Your task to perform on an android device: create a new album in the google photos Image 0: 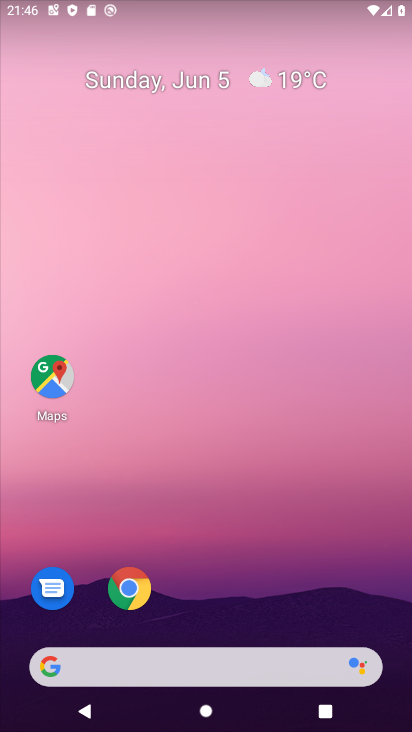
Step 0: drag from (345, 577) to (361, 226)
Your task to perform on an android device: create a new album in the google photos Image 1: 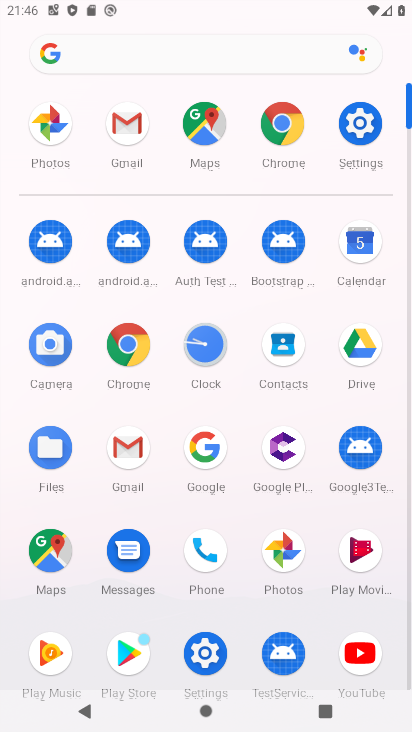
Step 1: click (284, 550)
Your task to perform on an android device: create a new album in the google photos Image 2: 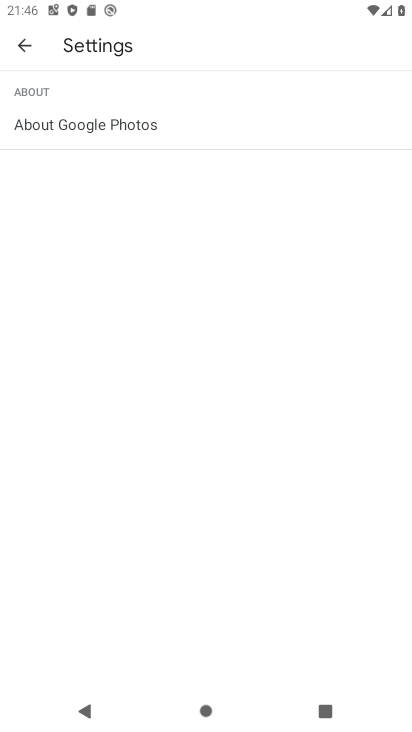
Step 2: press back button
Your task to perform on an android device: create a new album in the google photos Image 3: 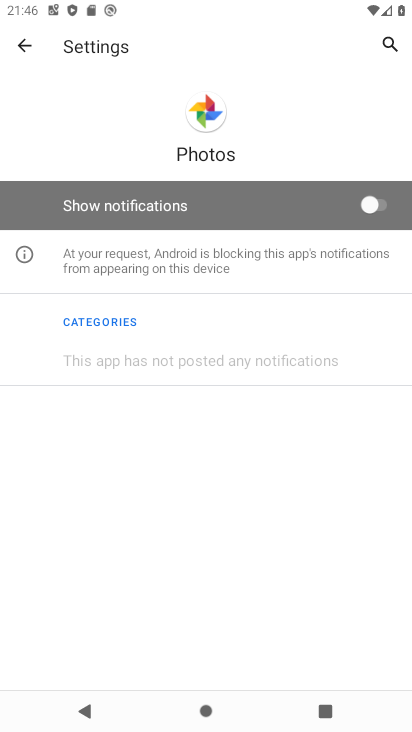
Step 3: press back button
Your task to perform on an android device: create a new album in the google photos Image 4: 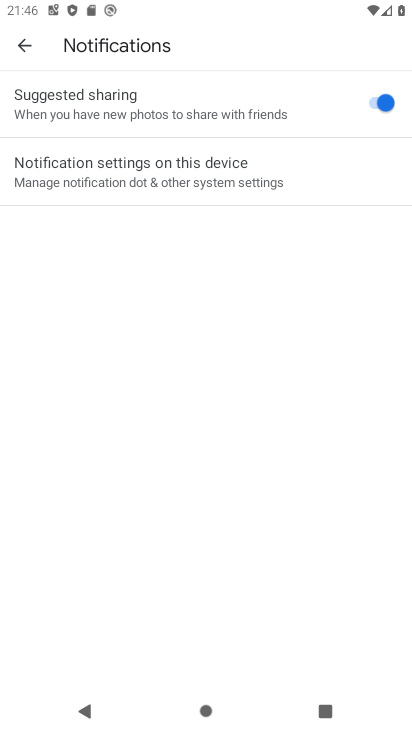
Step 4: press back button
Your task to perform on an android device: create a new album in the google photos Image 5: 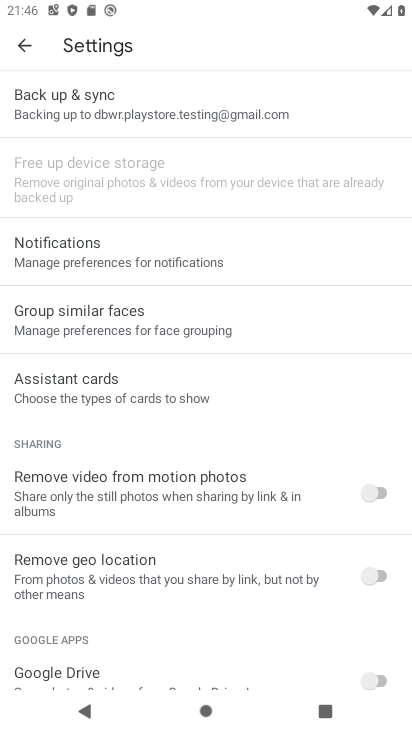
Step 5: press back button
Your task to perform on an android device: create a new album in the google photos Image 6: 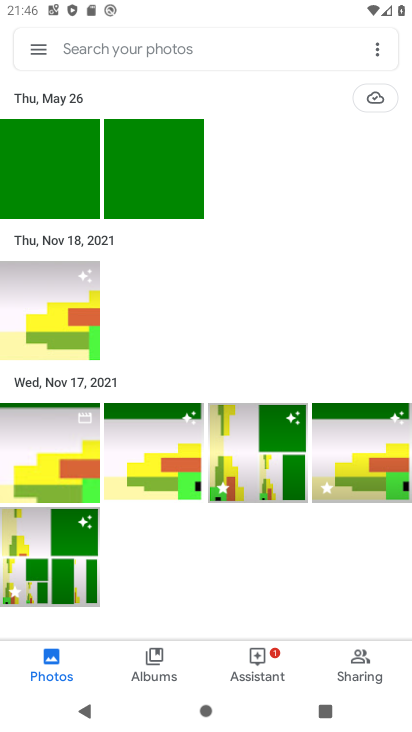
Step 6: click (381, 55)
Your task to perform on an android device: create a new album in the google photos Image 7: 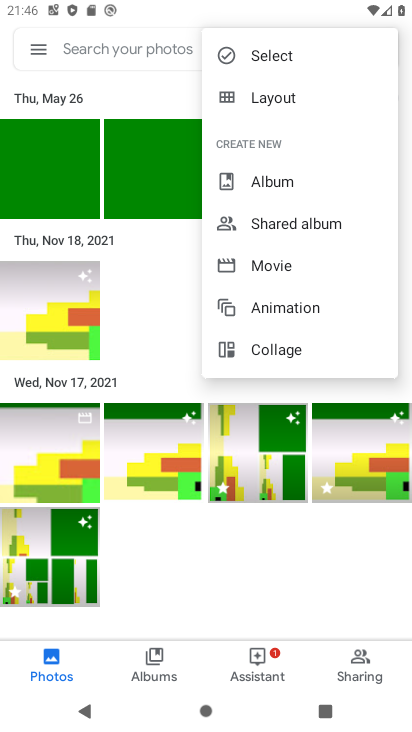
Step 7: click (287, 187)
Your task to perform on an android device: create a new album in the google photos Image 8: 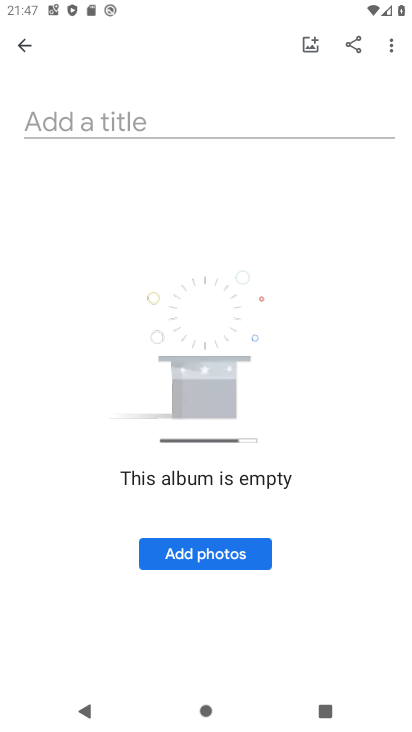
Step 8: click (104, 125)
Your task to perform on an android device: create a new album in the google photos Image 9: 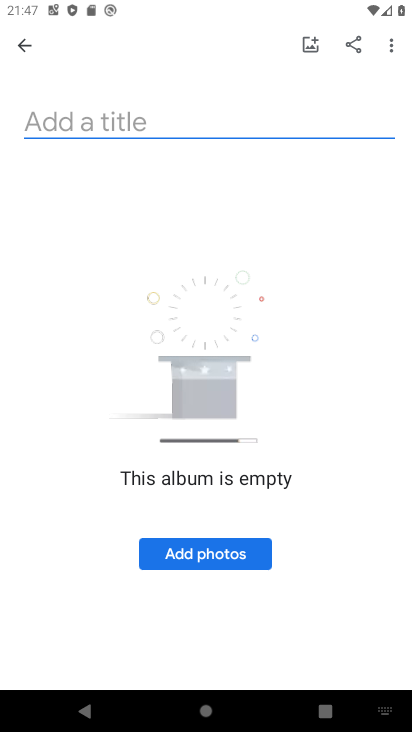
Step 9: type "fav"
Your task to perform on an android device: create a new album in the google photos Image 10: 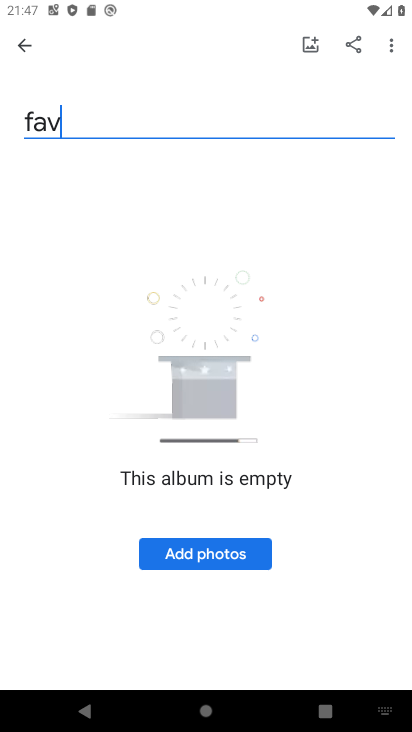
Step 10: click (198, 560)
Your task to perform on an android device: create a new album in the google photos Image 11: 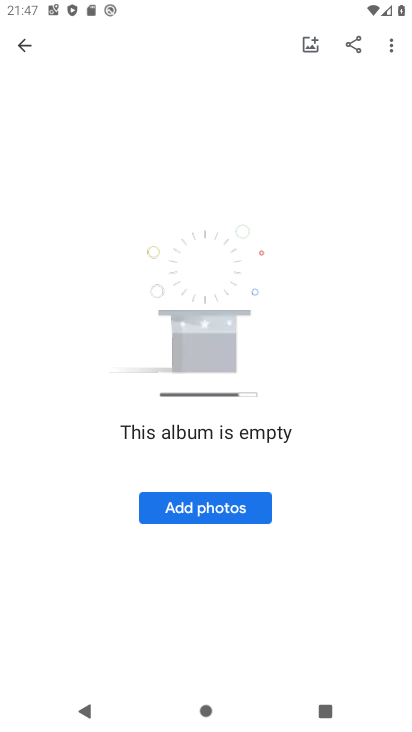
Step 11: click (168, 497)
Your task to perform on an android device: create a new album in the google photos Image 12: 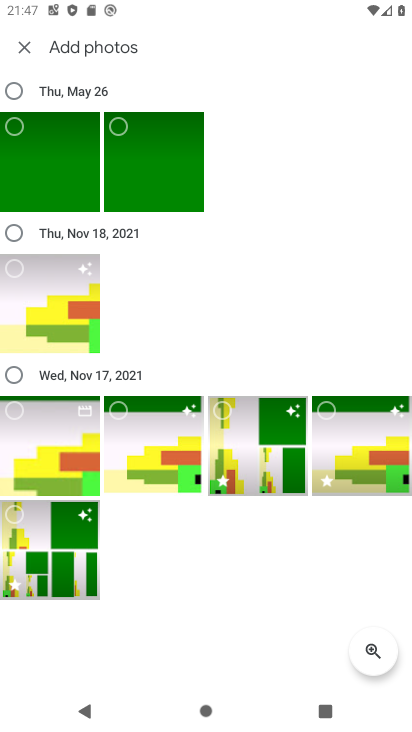
Step 12: click (82, 155)
Your task to perform on an android device: create a new album in the google photos Image 13: 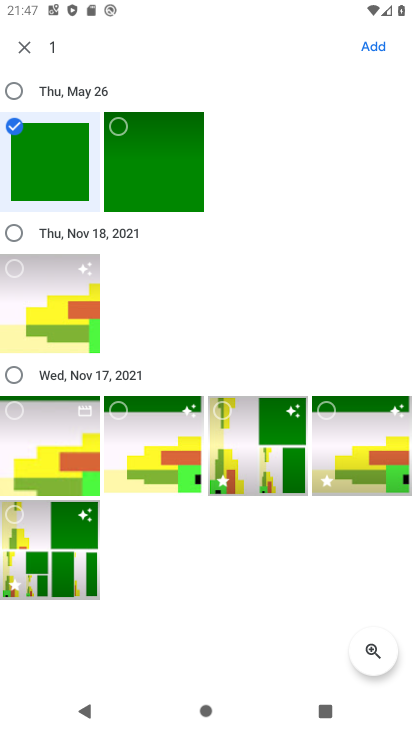
Step 13: click (157, 166)
Your task to perform on an android device: create a new album in the google photos Image 14: 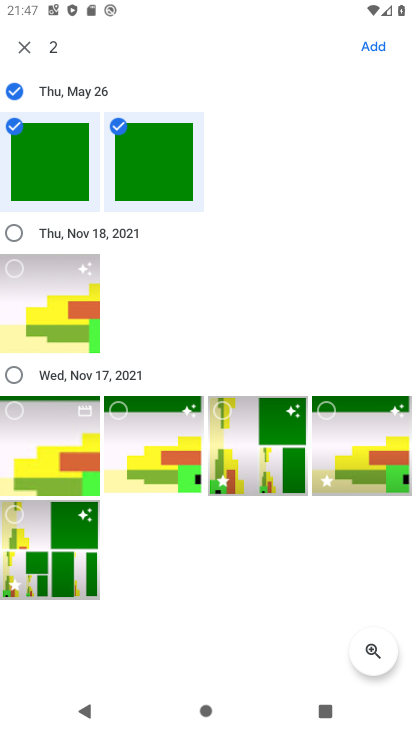
Step 14: click (371, 49)
Your task to perform on an android device: create a new album in the google photos Image 15: 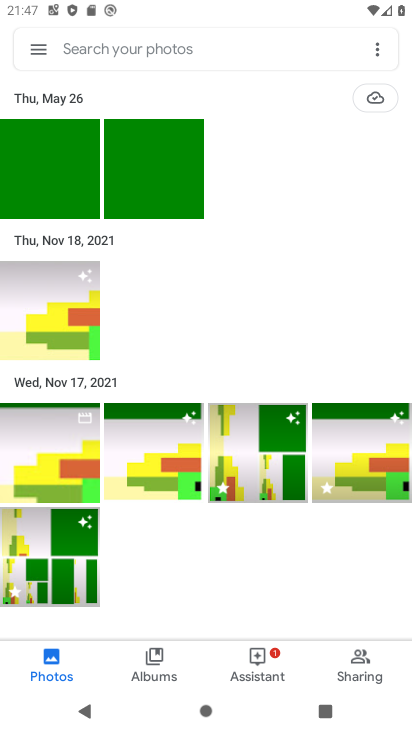
Step 15: task complete